Your task to perform on an android device: Go to Google maps Image 0: 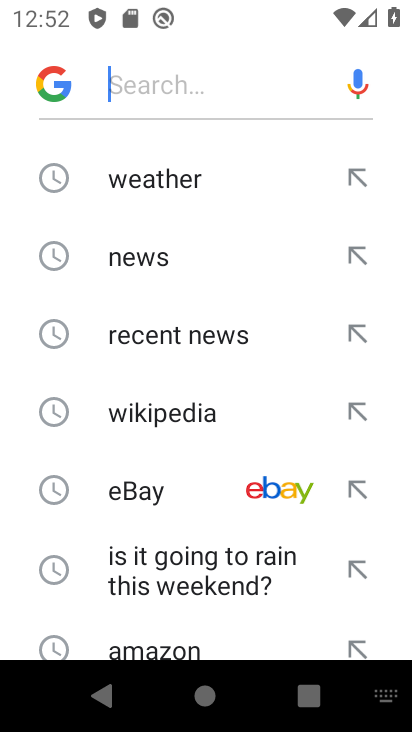
Step 0: press home button
Your task to perform on an android device: Go to Google maps Image 1: 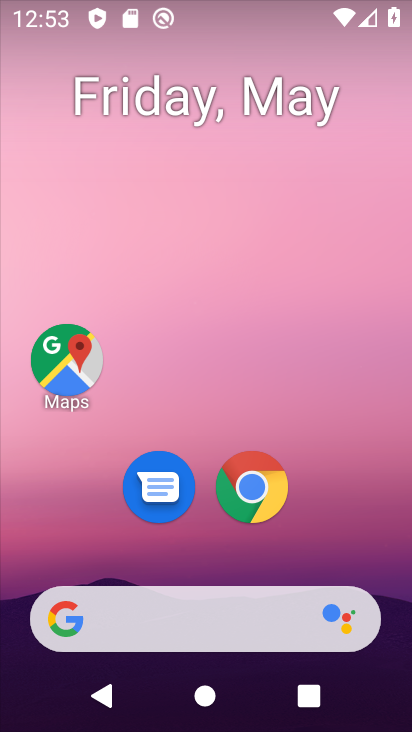
Step 1: click (73, 365)
Your task to perform on an android device: Go to Google maps Image 2: 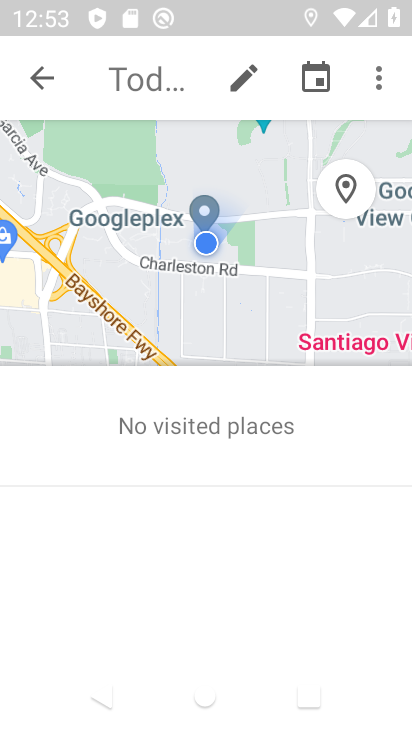
Step 2: click (56, 97)
Your task to perform on an android device: Go to Google maps Image 3: 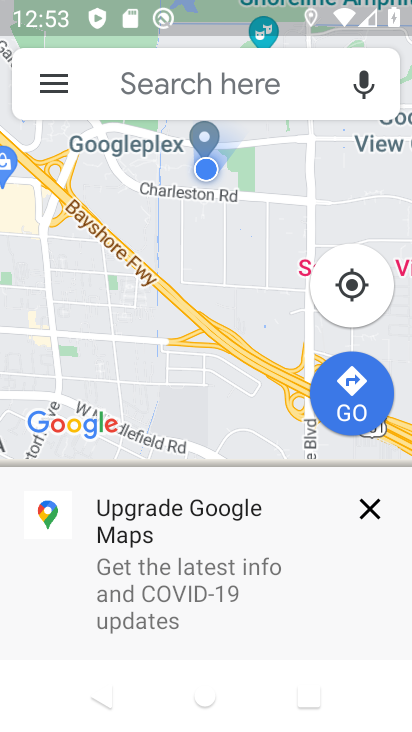
Step 3: task complete